Your task to perform on an android device: Search for sushi restaurants on Maps Image 0: 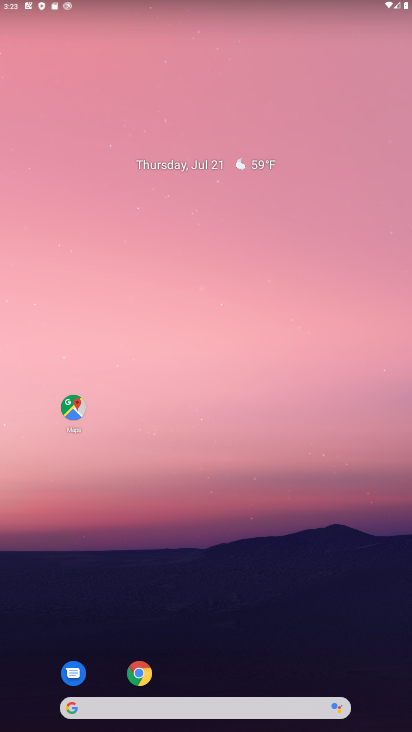
Step 0: click (73, 405)
Your task to perform on an android device: Search for sushi restaurants on Maps Image 1: 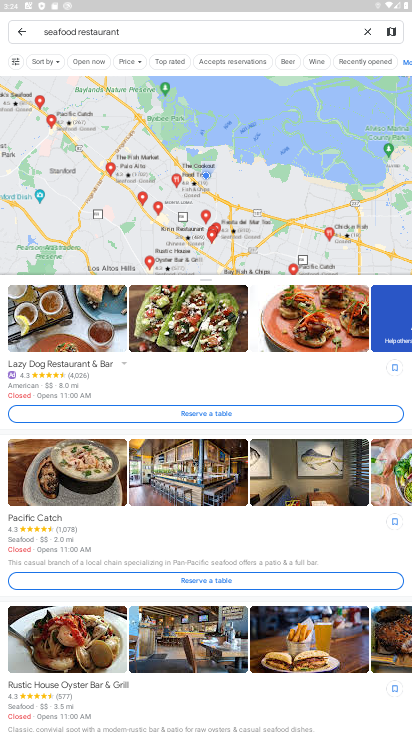
Step 1: click (367, 34)
Your task to perform on an android device: Search for sushi restaurants on Maps Image 2: 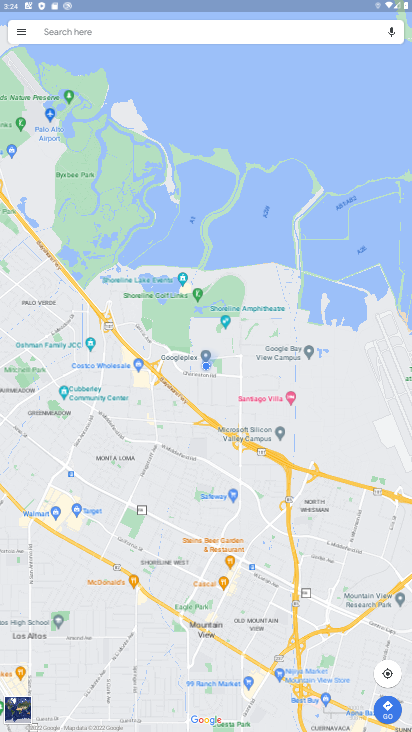
Step 2: click (303, 33)
Your task to perform on an android device: Search for sushi restaurants on Maps Image 3: 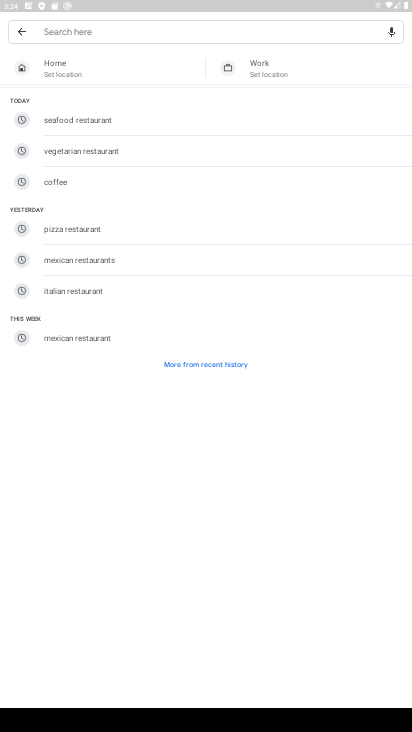
Step 3: type "sushi restaurants"
Your task to perform on an android device: Search for sushi restaurants on Maps Image 4: 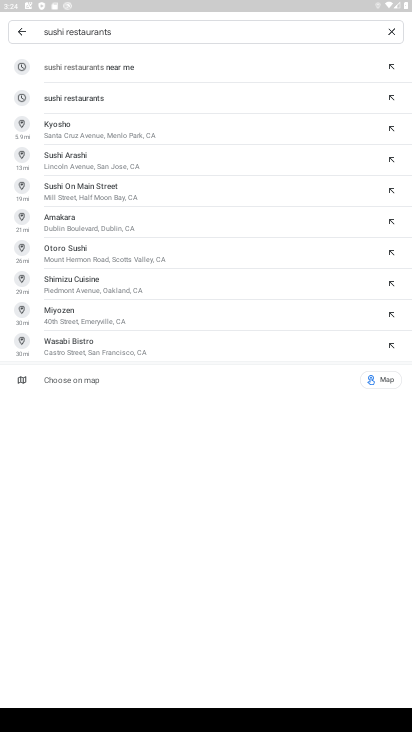
Step 4: click (235, 100)
Your task to perform on an android device: Search for sushi restaurants on Maps Image 5: 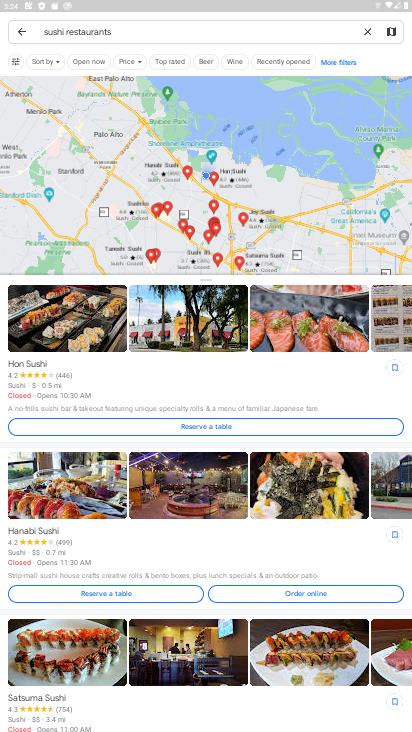
Step 5: task complete